Your task to perform on an android device: find photos in the google photos app Image 0: 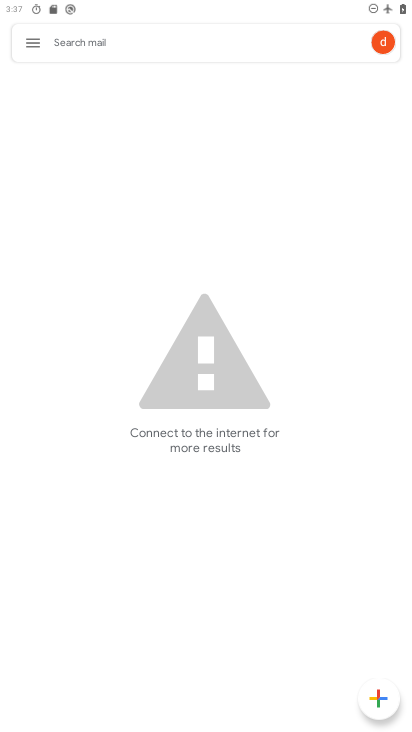
Step 0: press home button
Your task to perform on an android device: find photos in the google photos app Image 1: 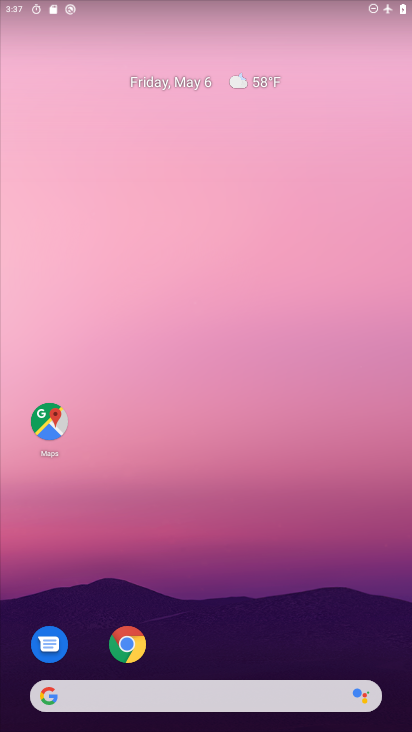
Step 1: drag from (207, 724) to (210, 78)
Your task to perform on an android device: find photos in the google photos app Image 2: 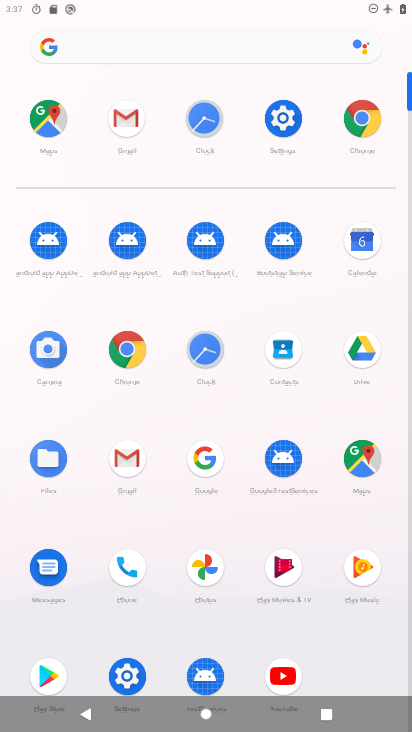
Step 2: click (209, 561)
Your task to perform on an android device: find photos in the google photos app Image 3: 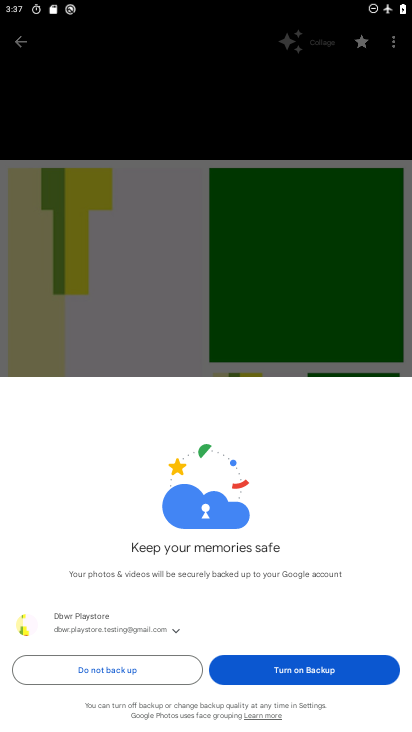
Step 3: click (115, 672)
Your task to perform on an android device: find photos in the google photos app Image 4: 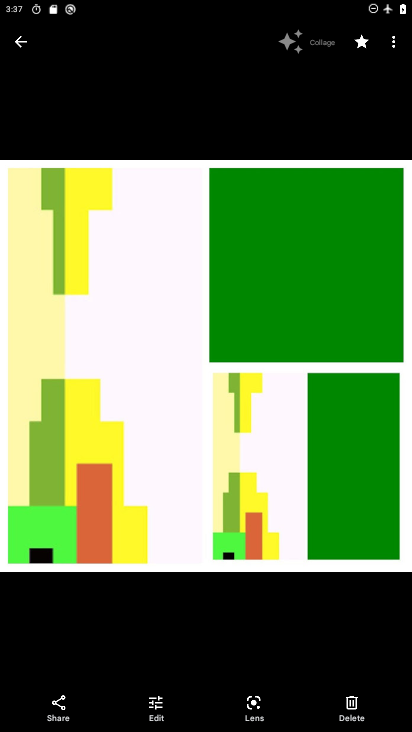
Step 4: task complete